Your task to perform on an android device: stop showing notifications on the lock screen Image 0: 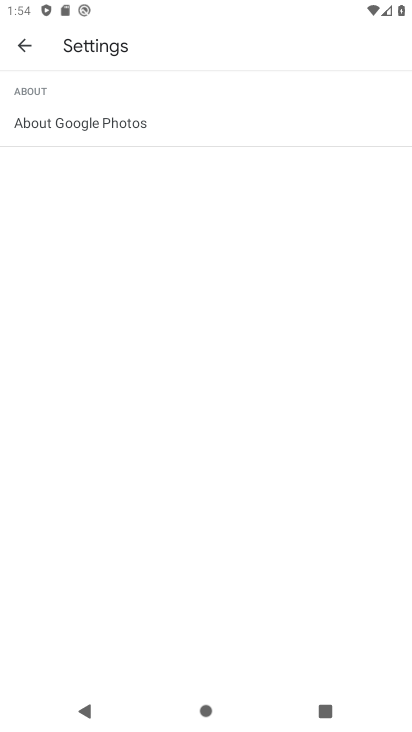
Step 0: press back button
Your task to perform on an android device: stop showing notifications on the lock screen Image 1: 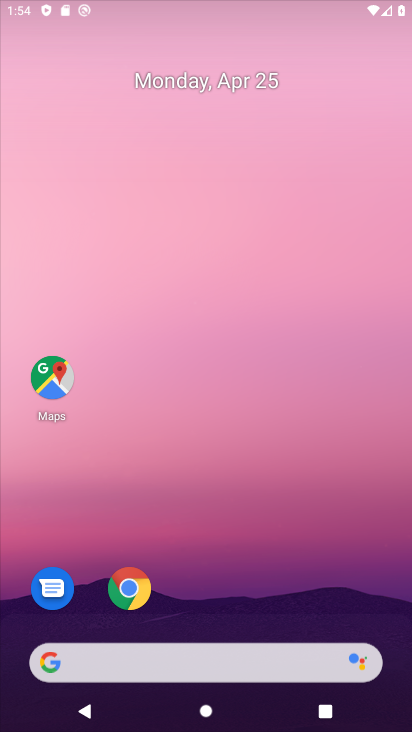
Step 1: drag from (137, 649) to (299, 2)
Your task to perform on an android device: stop showing notifications on the lock screen Image 2: 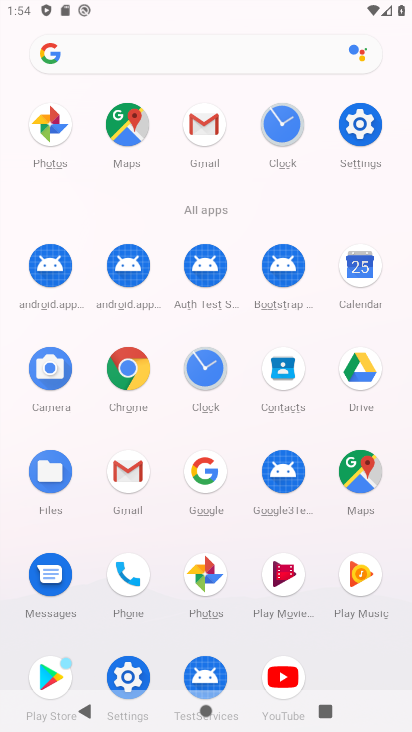
Step 2: click (135, 663)
Your task to perform on an android device: stop showing notifications on the lock screen Image 3: 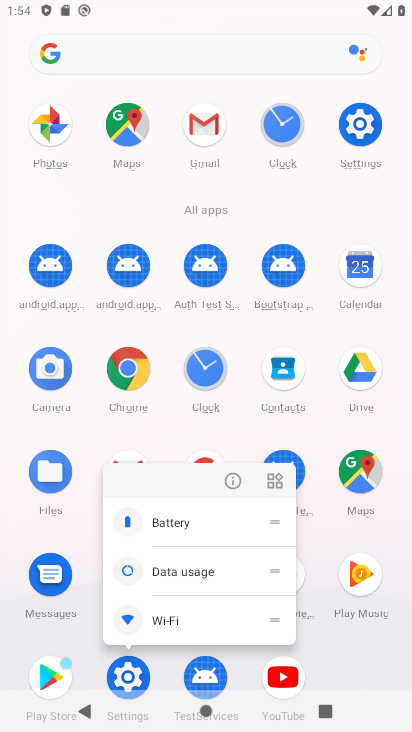
Step 3: click (131, 678)
Your task to perform on an android device: stop showing notifications on the lock screen Image 4: 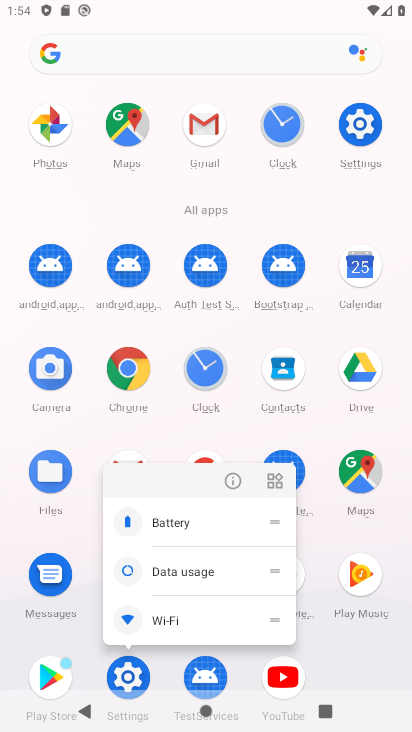
Step 4: click (131, 678)
Your task to perform on an android device: stop showing notifications on the lock screen Image 5: 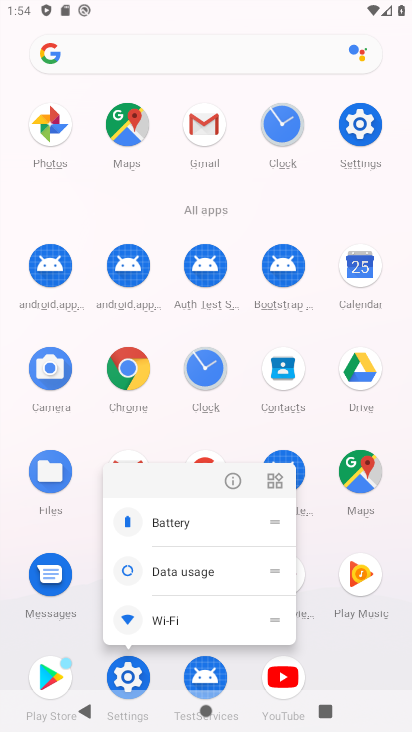
Step 5: click (131, 678)
Your task to perform on an android device: stop showing notifications on the lock screen Image 6: 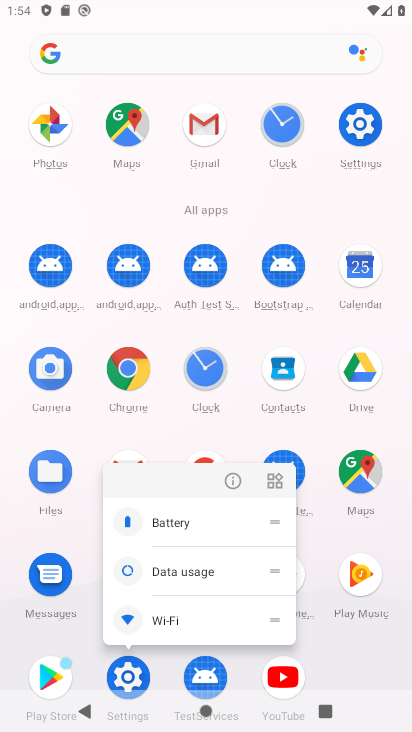
Step 6: click (131, 678)
Your task to perform on an android device: stop showing notifications on the lock screen Image 7: 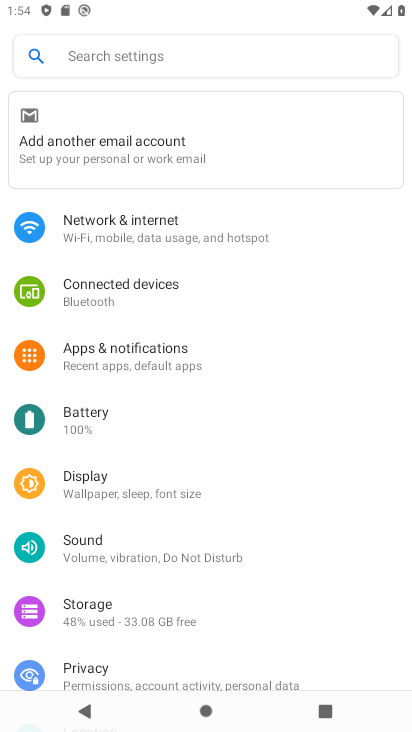
Step 7: click (198, 349)
Your task to perform on an android device: stop showing notifications on the lock screen Image 8: 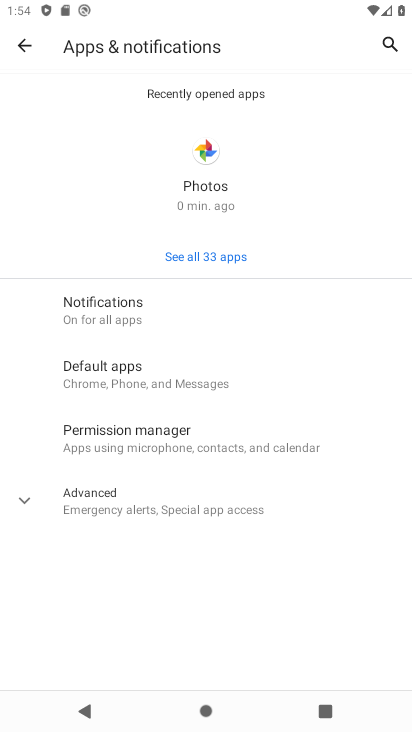
Step 8: click (166, 321)
Your task to perform on an android device: stop showing notifications on the lock screen Image 9: 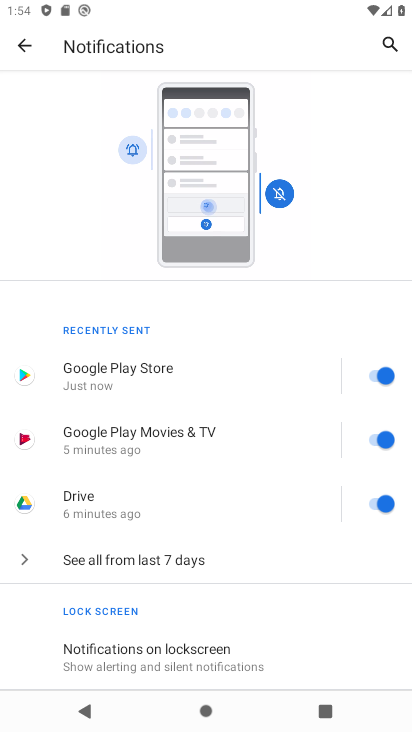
Step 9: click (162, 669)
Your task to perform on an android device: stop showing notifications on the lock screen Image 10: 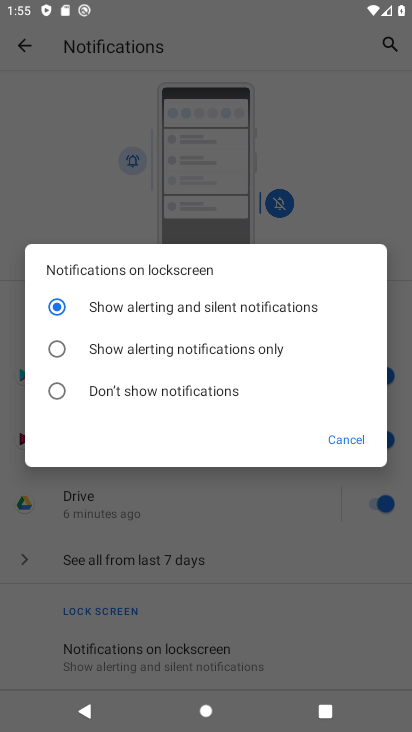
Step 10: click (151, 391)
Your task to perform on an android device: stop showing notifications on the lock screen Image 11: 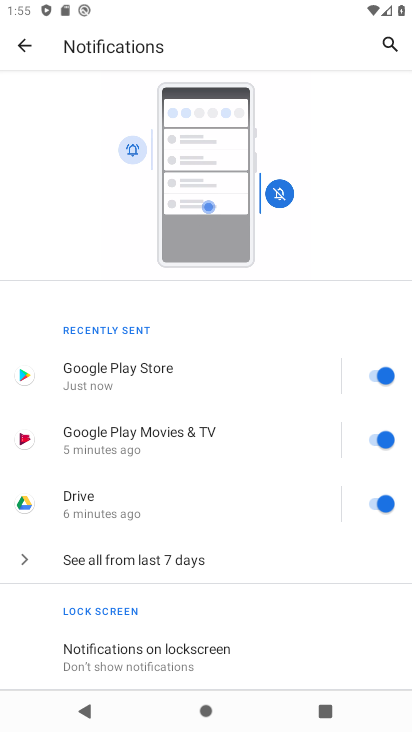
Step 11: task complete